Your task to perform on an android device: Search for Mexican restaurants on Maps Image 0: 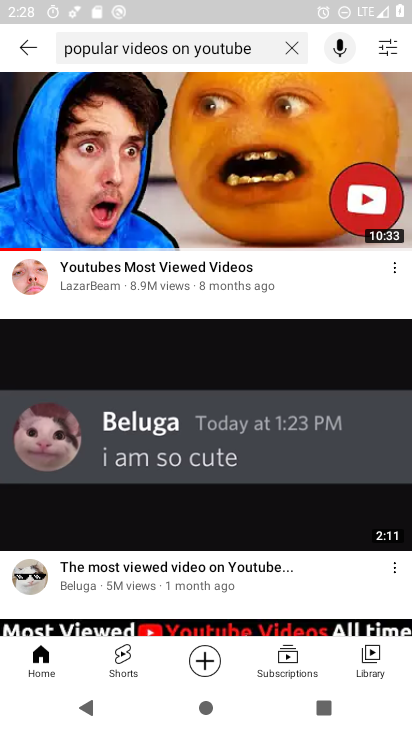
Step 0: press home button
Your task to perform on an android device: Search for Mexican restaurants on Maps Image 1: 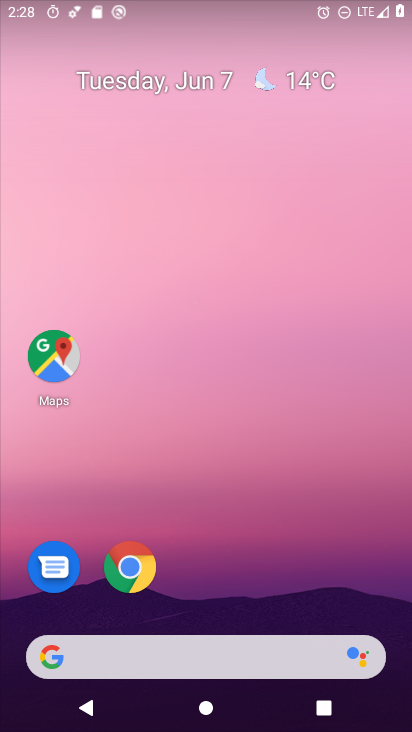
Step 1: drag from (369, 586) to (411, 82)
Your task to perform on an android device: Search for Mexican restaurants on Maps Image 2: 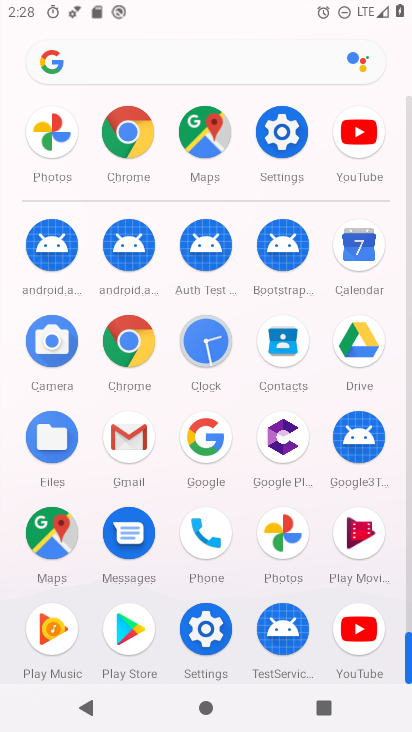
Step 2: click (207, 134)
Your task to perform on an android device: Search for Mexican restaurants on Maps Image 3: 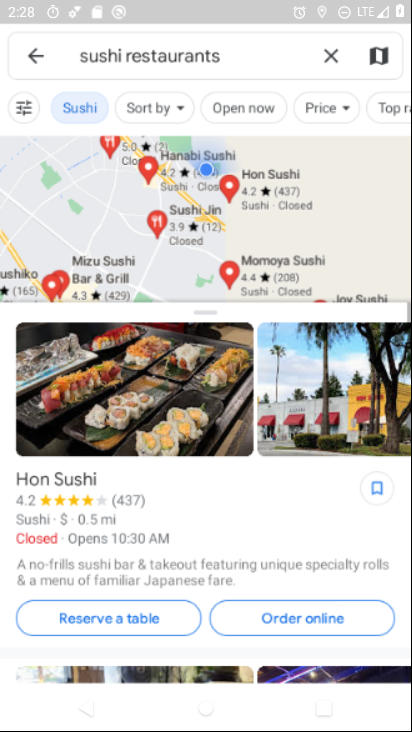
Step 3: click (329, 58)
Your task to perform on an android device: Search for Mexican restaurants on Maps Image 4: 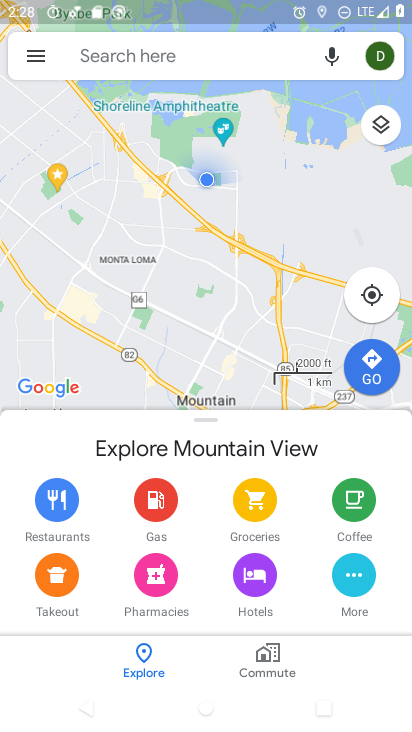
Step 4: click (214, 50)
Your task to perform on an android device: Search for Mexican restaurants on Maps Image 5: 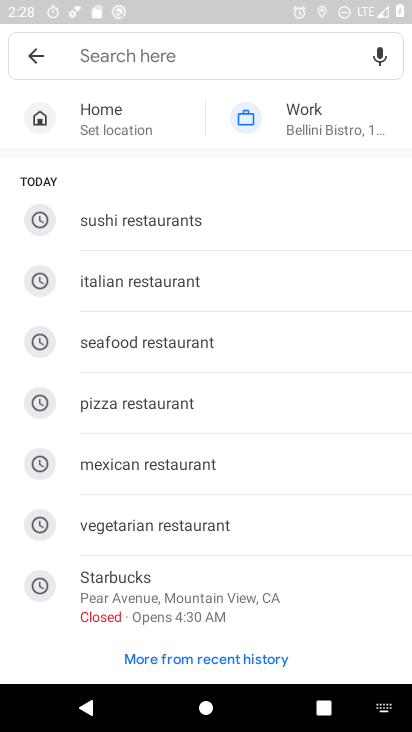
Step 5: click (126, 448)
Your task to perform on an android device: Search for Mexican restaurants on Maps Image 6: 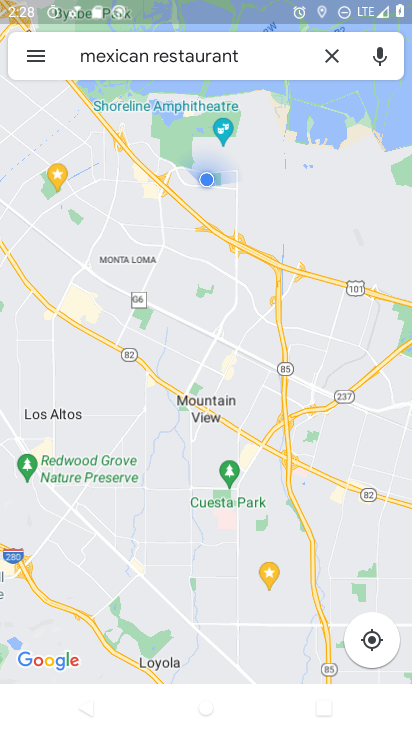
Step 6: task complete